Your task to perform on an android device: turn on data saver in the chrome app Image 0: 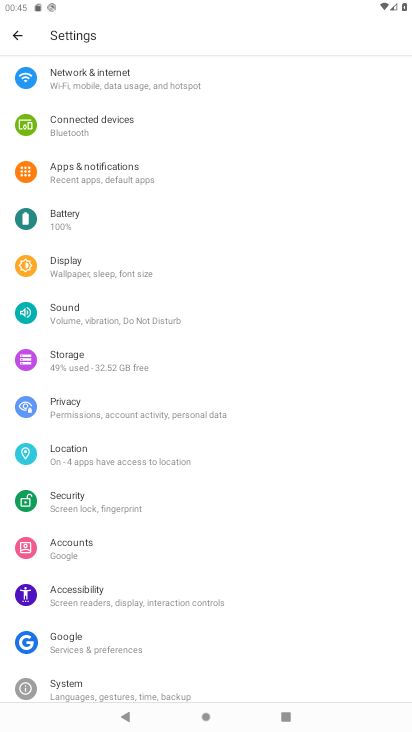
Step 0: press home button
Your task to perform on an android device: turn on data saver in the chrome app Image 1: 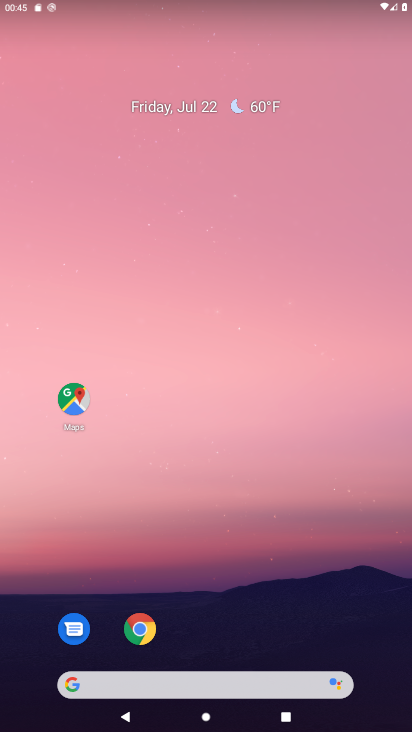
Step 1: drag from (209, 624) to (209, 147)
Your task to perform on an android device: turn on data saver in the chrome app Image 2: 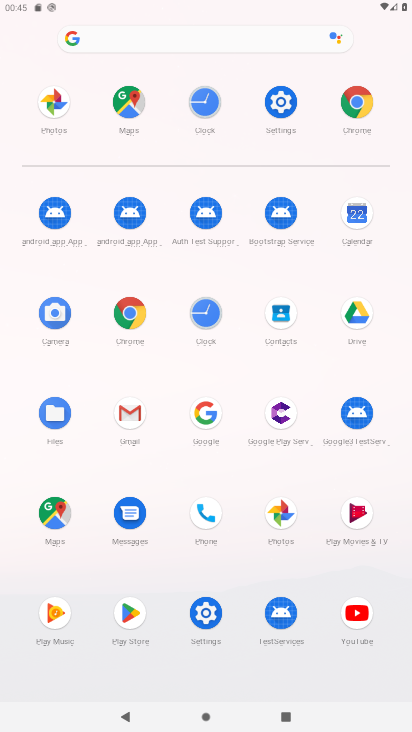
Step 2: click (354, 102)
Your task to perform on an android device: turn on data saver in the chrome app Image 3: 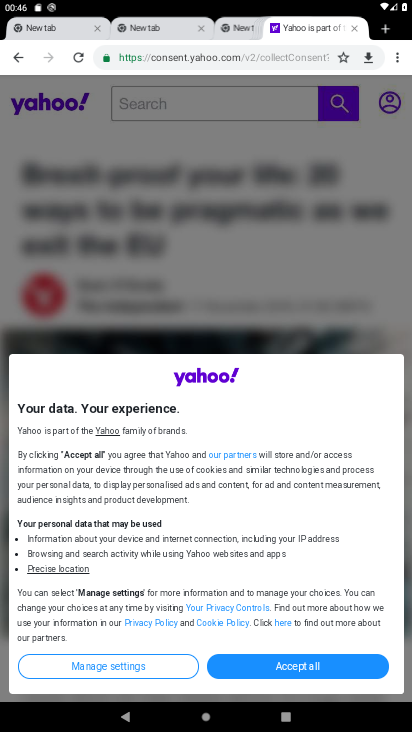
Step 3: click (399, 66)
Your task to perform on an android device: turn on data saver in the chrome app Image 4: 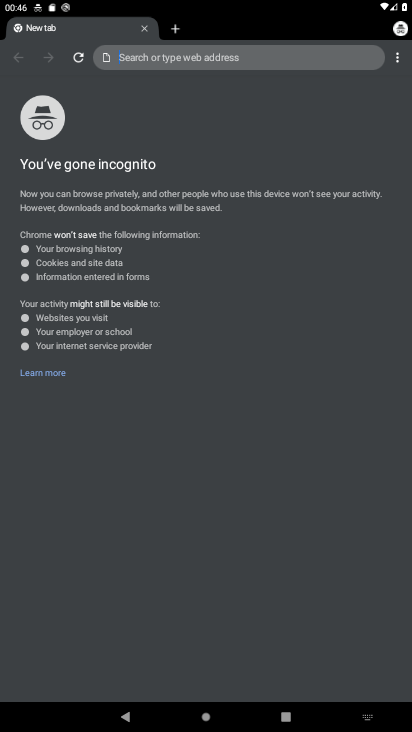
Step 4: click (390, 60)
Your task to perform on an android device: turn on data saver in the chrome app Image 5: 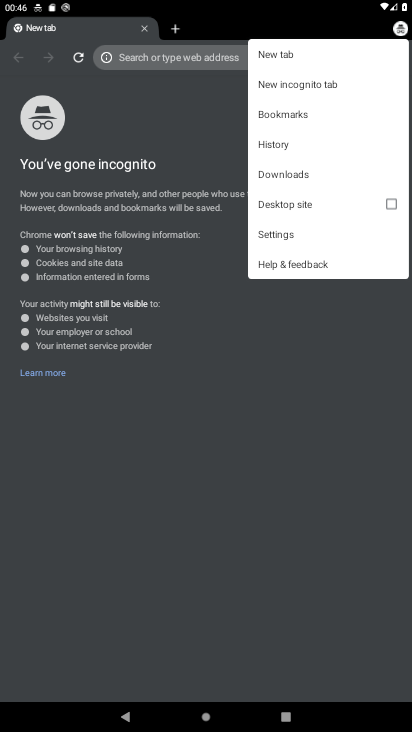
Step 5: click (292, 241)
Your task to perform on an android device: turn on data saver in the chrome app Image 6: 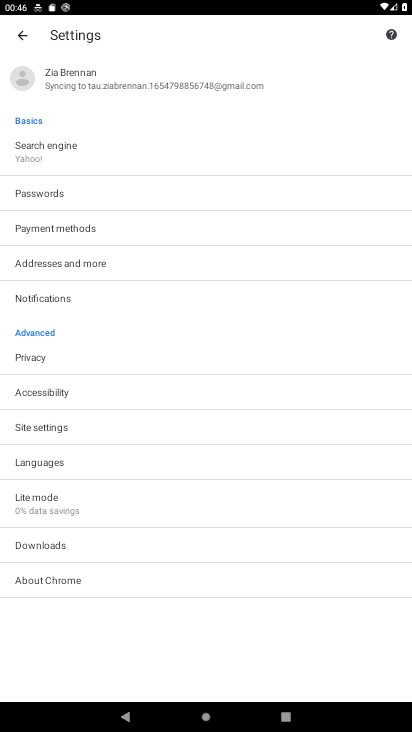
Step 6: click (71, 500)
Your task to perform on an android device: turn on data saver in the chrome app Image 7: 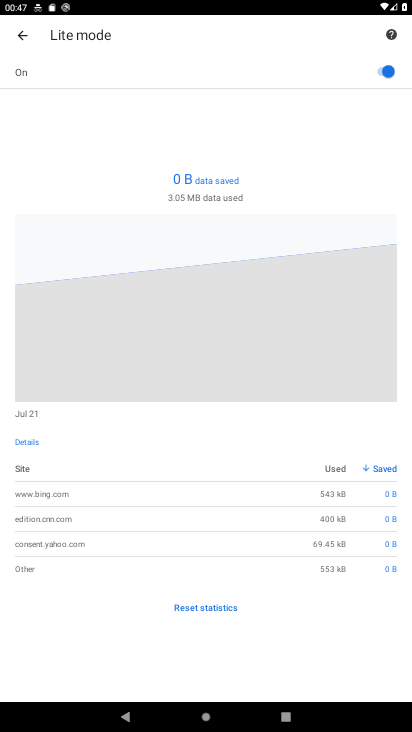
Step 7: task complete